Your task to perform on an android device: allow notifications from all sites in the chrome app Image 0: 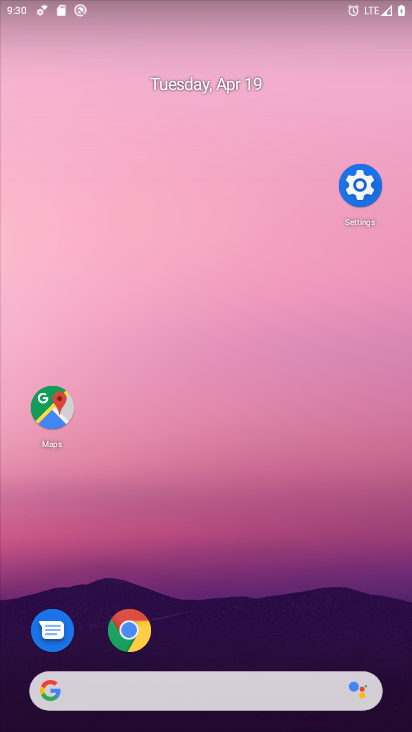
Step 0: click (134, 627)
Your task to perform on an android device: allow notifications from all sites in the chrome app Image 1: 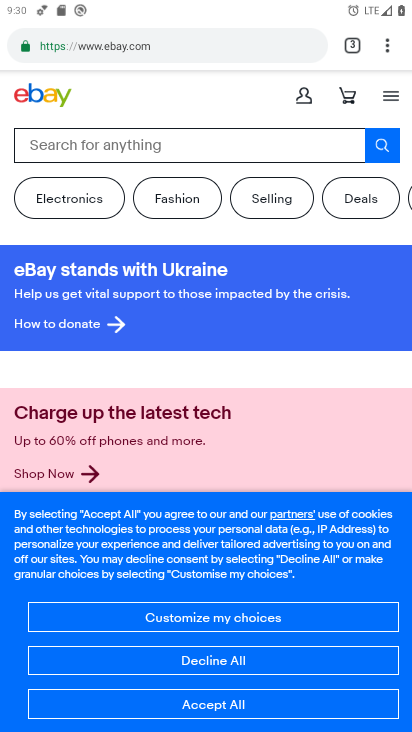
Step 1: click (411, 424)
Your task to perform on an android device: allow notifications from all sites in the chrome app Image 2: 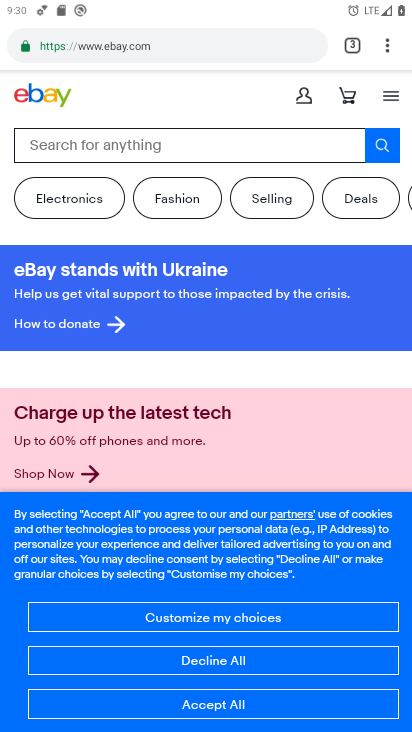
Step 2: click (387, 48)
Your task to perform on an android device: allow notifications from all sites in the chrome app Image 3: 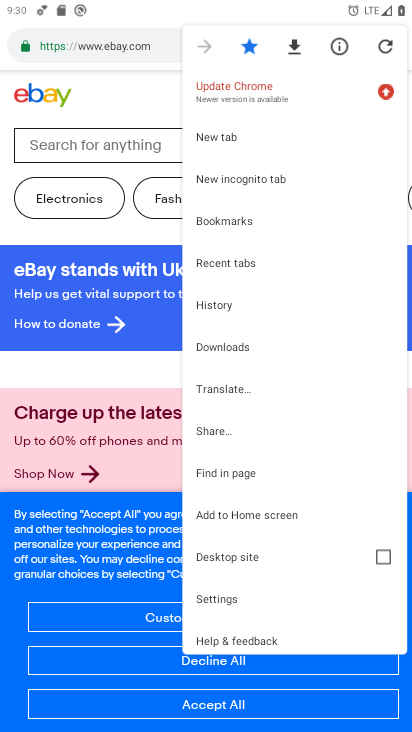
Step 3: click (257, 595)
Your task to perform on an android device: allow notifications from all sites in the chrome app Image 4: 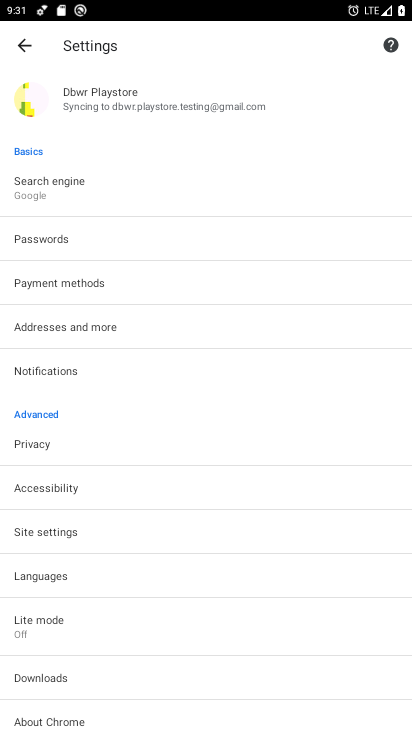
Step 4: click (89, 372)
Your task to perform on an android device: allow notifications from all sites in the chrome app Image 5: 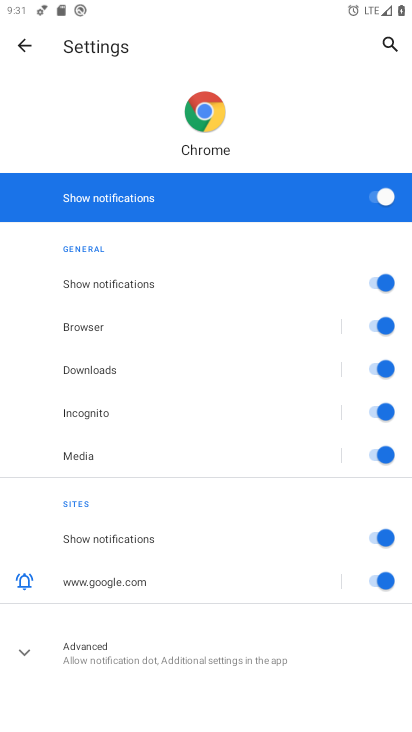
Step 5: drag from (149, 594) to (147, 177)
Your task to perform on an android device: allow notifications from all sites in the chrome app Image 6: 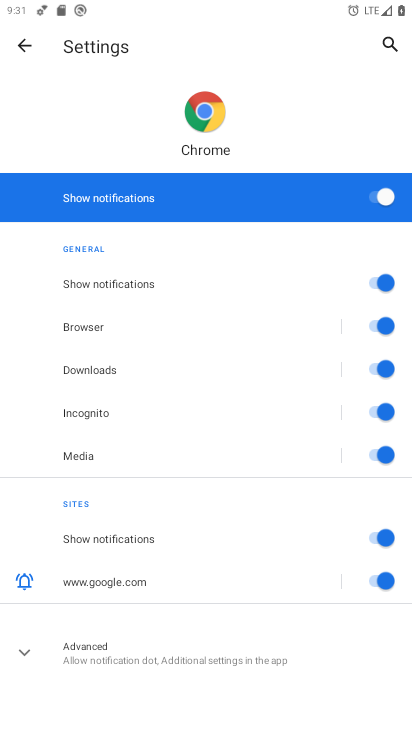
Step 6: click (144, 668)
Your task to perform on an android device: allow notifications from all sites in the chrome app Image 7: 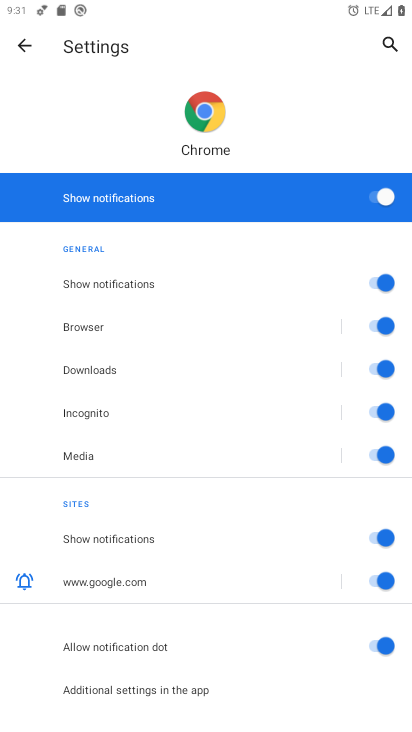
Step 7: task complete